Your task to perform on an android device: Open Wikipedia Image 0: 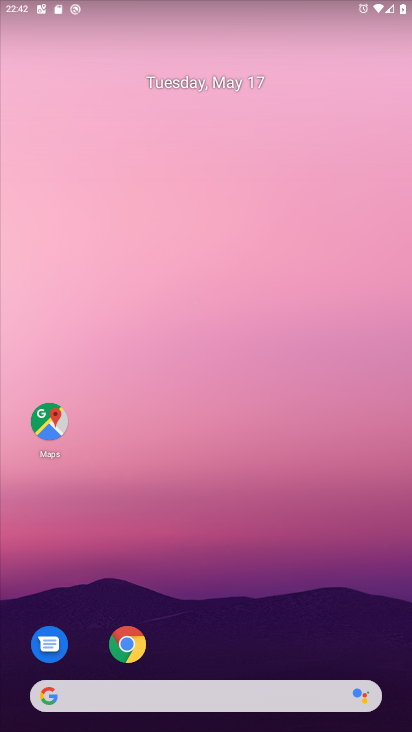
Step 0: press home button
Your task to perform on an android device: Open Wikipedia Image 1: 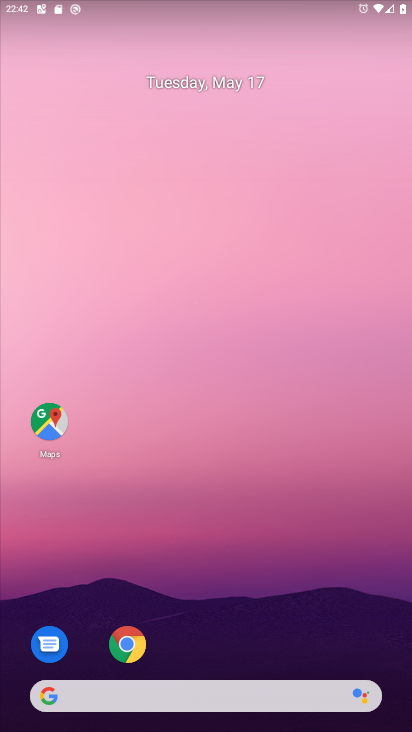
Step 1: click (120, 638)
Your task to perform on an android device: Open Wikipedia Image 2: 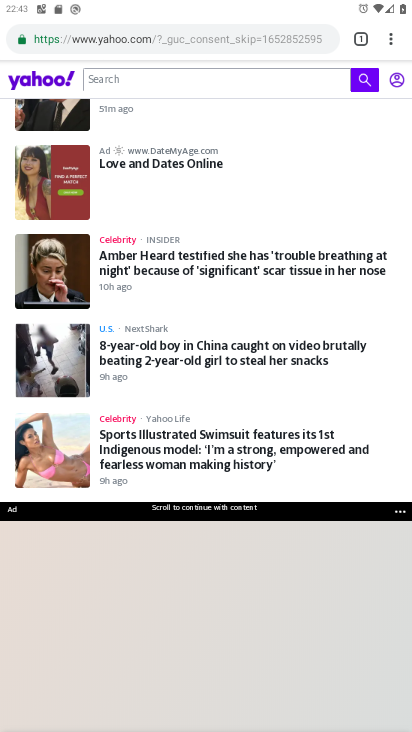
Step 2: click (363, 32)
Your task to perform on an android device: Open Wikipedia Image 3: 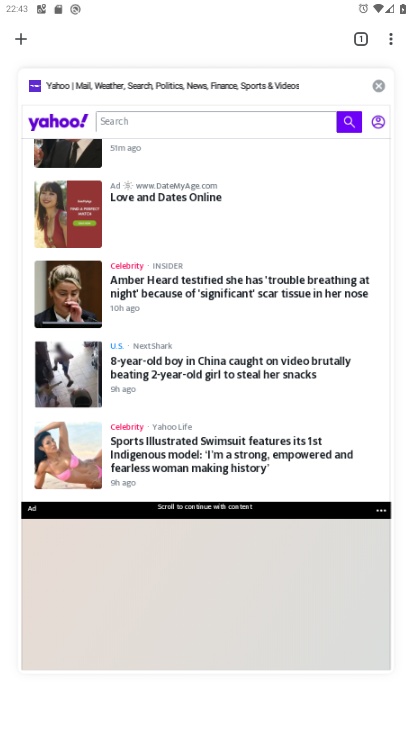
Step 3: click (377, 84)
Your task to perform on an android device: Open Wikipedia Image 4: 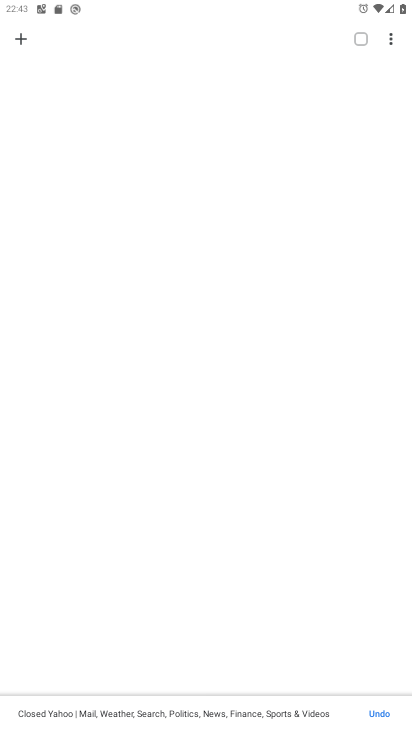
Step 4: click (18, 40)
Your task to perform on an android device: Open Wikipedia Image 5: 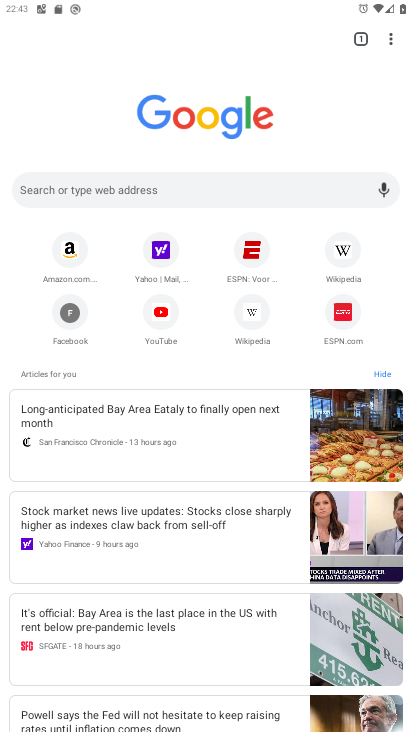
Step 5: click (332, 258)
Your task to perform on an android device: Open Wikipedia Image 6: 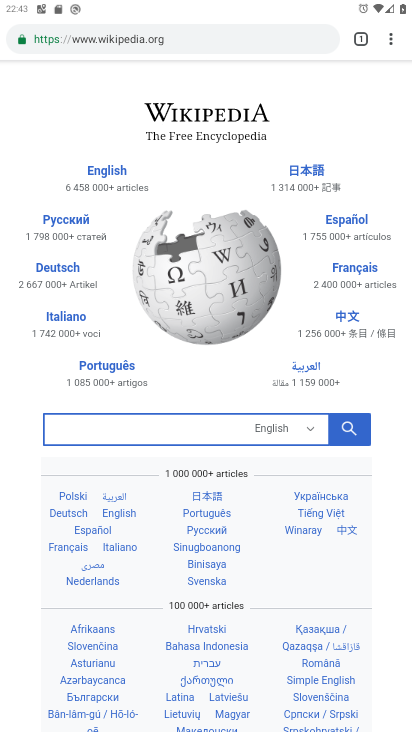
Step 6: task complete